Your task to perform on an android device: Open Google Image 0: 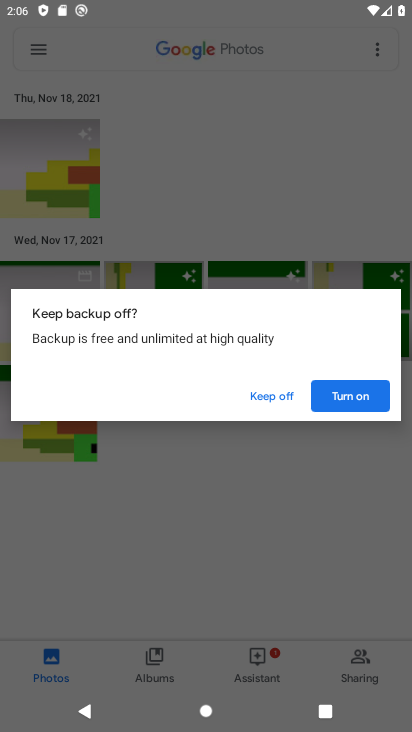
Step 0: press back button
Your task to perform on an android device: Open Google Image 1: 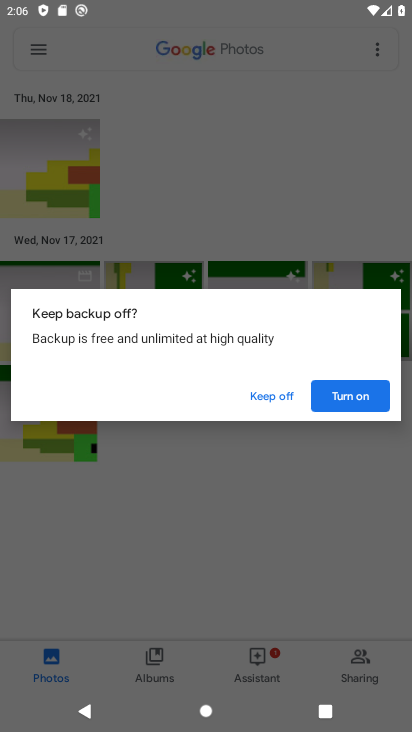
Step 1: press home button
Your task to perform on an android device: Open Google Image 2: 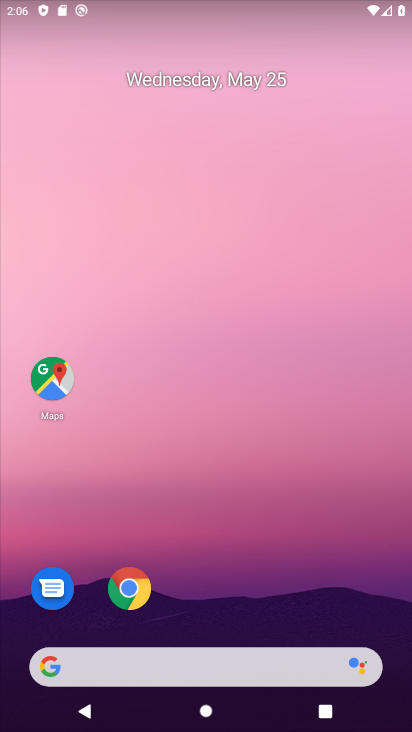
Step 2: drag from (249, 566) to (234, 4)
Your task to perform on an android device: Open Google Image 3: 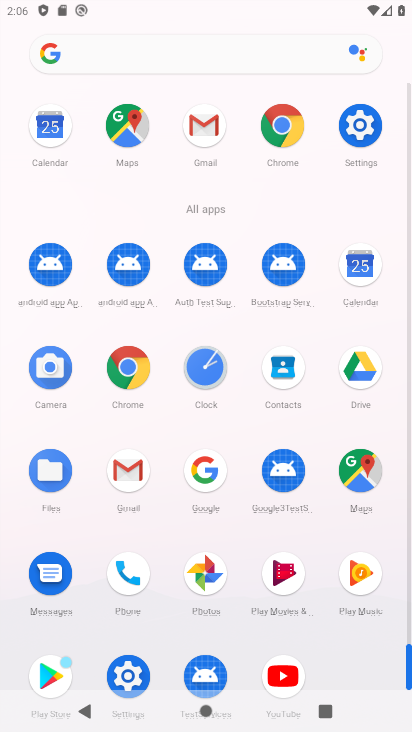
Step 3: click (278, 122)
Your task to perform on an android device: Open Google Image 4: 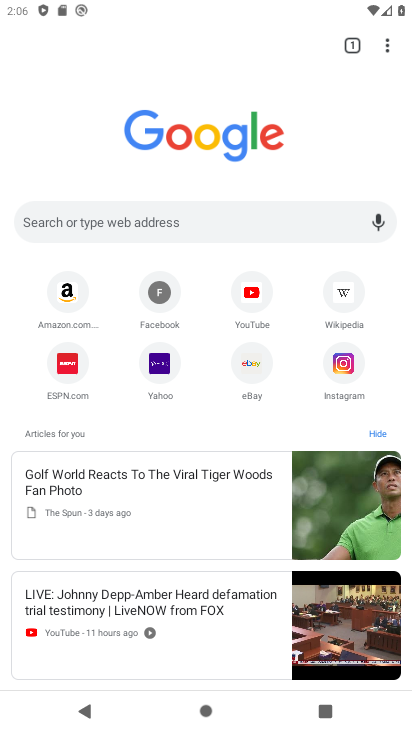
Step 4: click (208, 123)
Your task to perform on an android device: Open Google Image 5: 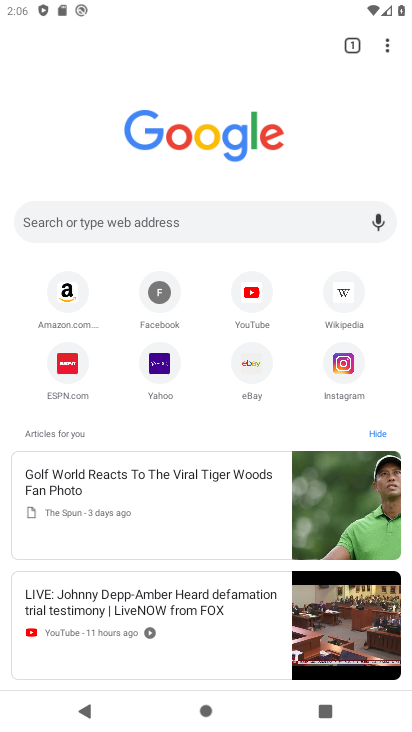
Step 5: click (178, 222)
Your task to perform on an android device: Open Google Image 6: 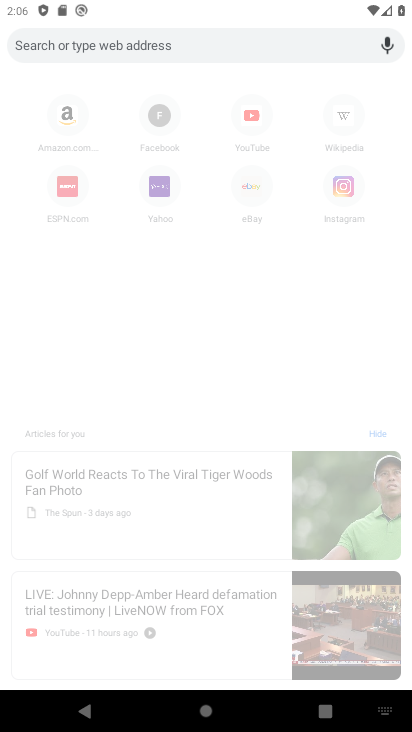
Step 6: type "Google"
Your task to perform on an android device: Open Google Image 7: 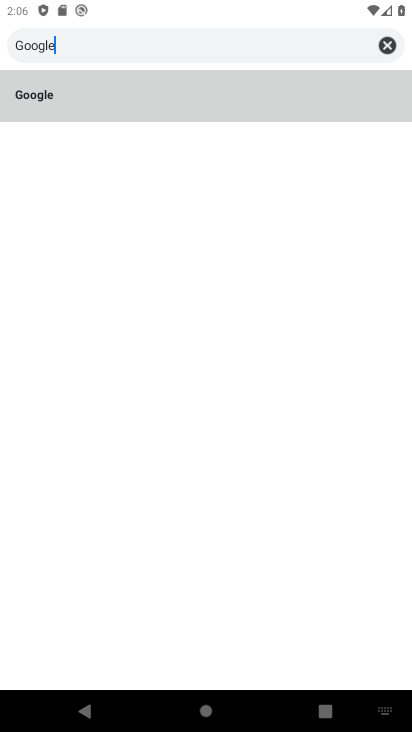
Step 7: type ""
Your task to perform on an android device: Open Google Image 8: 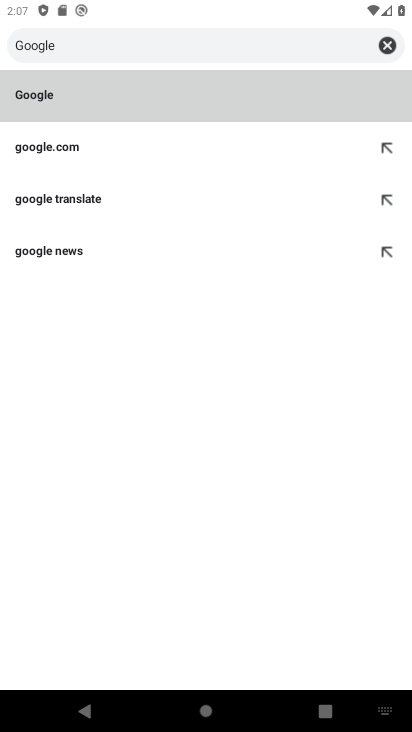
Step 8: click (89, 154)
Your task to perform on an android device: Open Google Image 9: 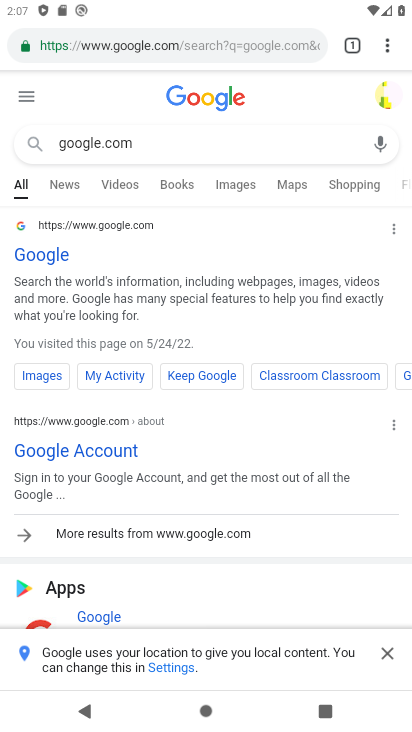
Step 9: click (31, 262)
Your task to perform on an android device: Open Google Image 10: 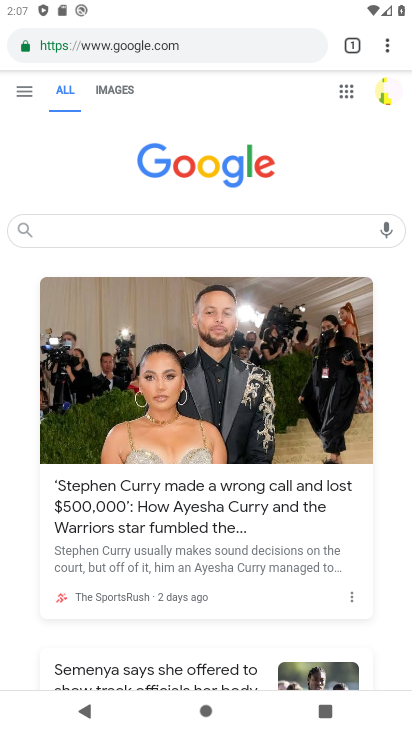
Step 10: task complete